Your task to perform on an android device: change timer sound Image 0: 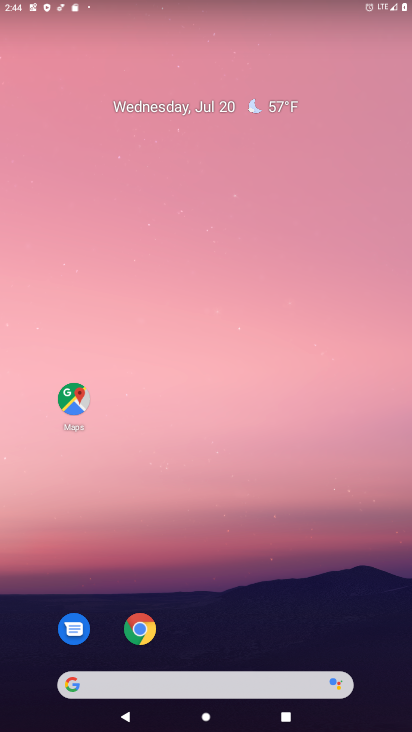
Step 0: drag from (371, 646) to (372, 53)
Your task to perform on an android device: change timer sound Image 1: 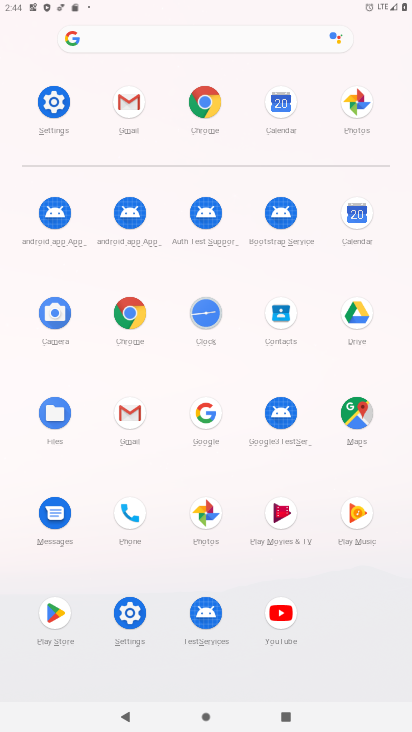
Step 1: click (207, 315)
Your task to perform on an android device: change timer sound Image 2: 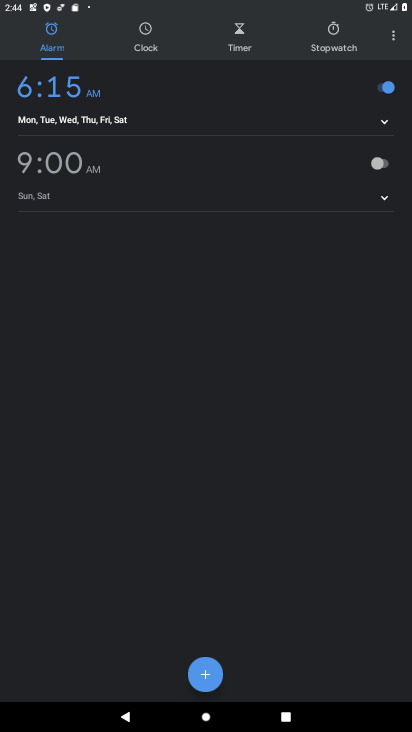
Step 2: click (393, 41)
Your task to perform on an android device: change timer sound Image 3: 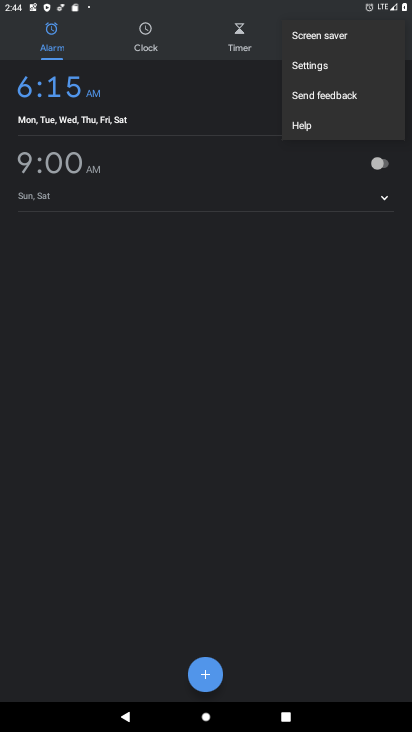
Step 3: click (305, 60)
Your task to perform on an android device: change timer sound Image 4: 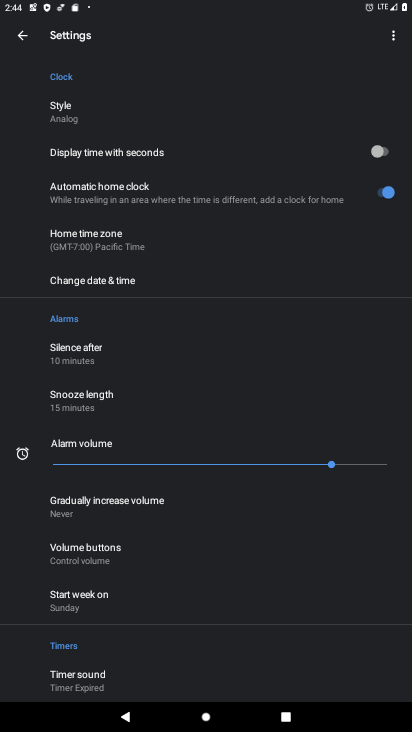
Step 4: drag from (149, 619) to (204, 175)
Your task to perform on an android device: change timer sound Image 5: 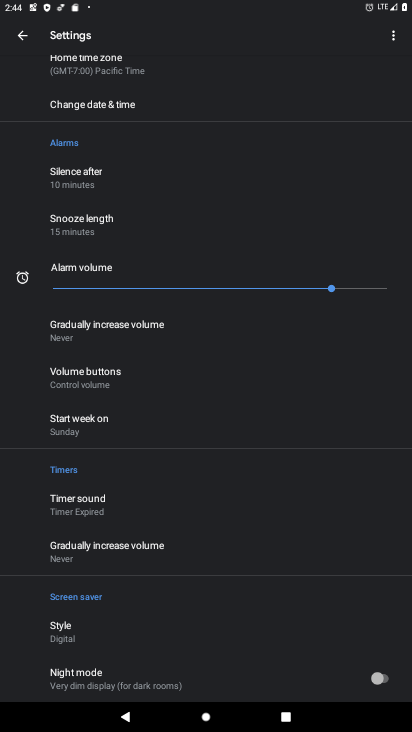
Step 5: click (75, 501)
Your task to perform on an android device: change timer sound Image 6: 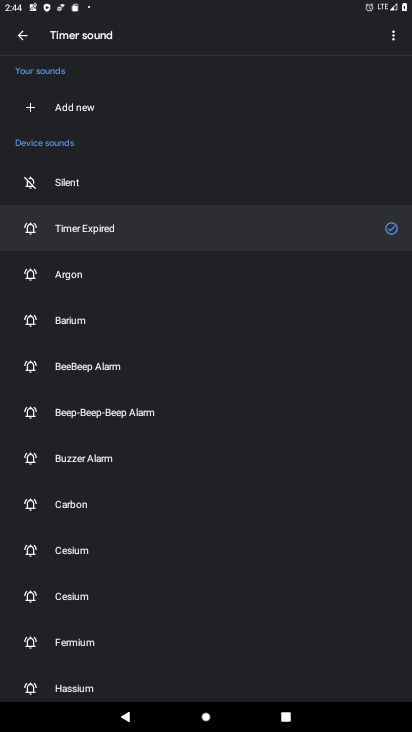
Step 6: click (65, 460)
Your task to perform on an android device: change timer sound Image 7: 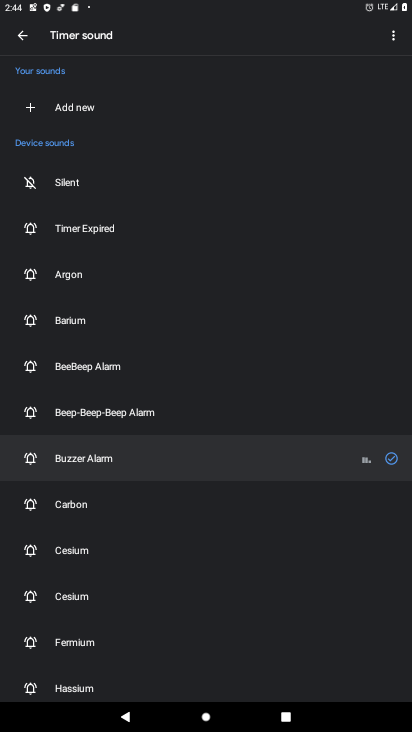
Step 7: task complete